Your task to perform on an android device: stop showing notifications on the lock screen Image 0: 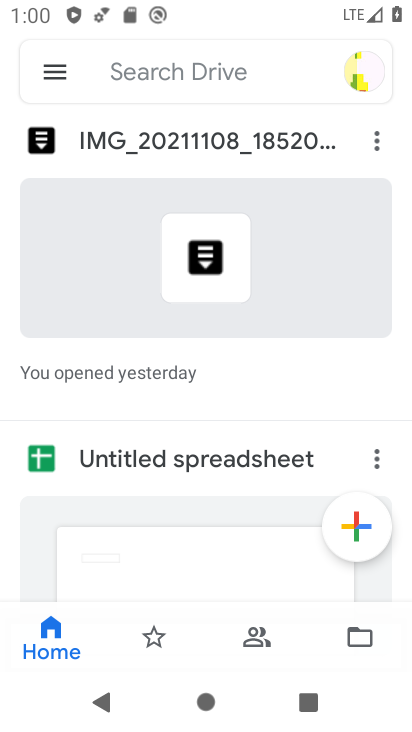
Step 0: press home button
Your task to perform on an android device: stop showing notifications on the lock screen Image 1: 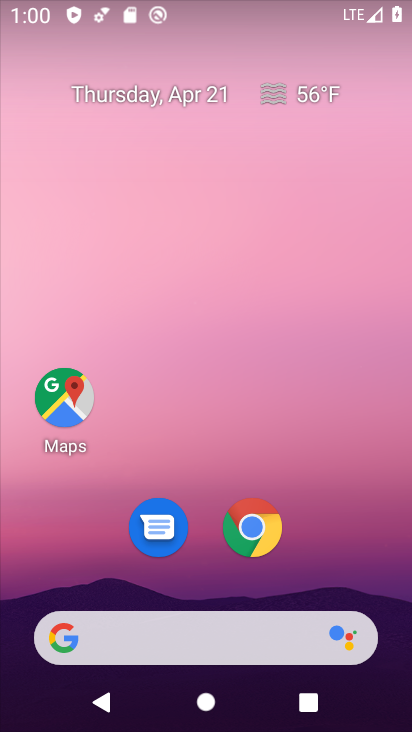
Step 1: drag from (199, 583) to (255, 174)
Your task to perform on an android device: stop showing notifications on the lock screen Image 2: 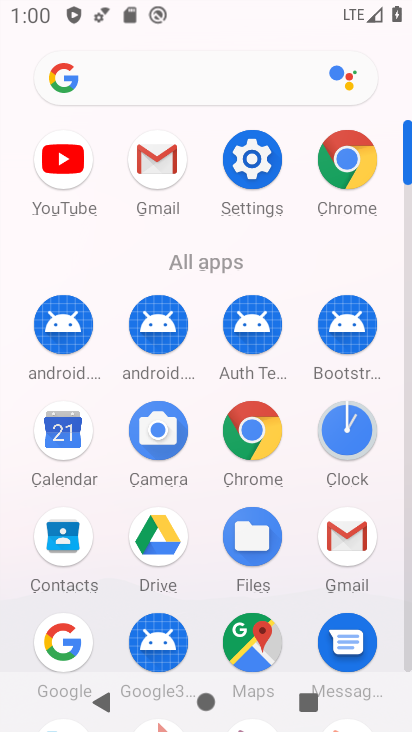
Step 2: click (256, 174)
Your task to perform on an android device: stop showing notifications on the lock screen Image 3: 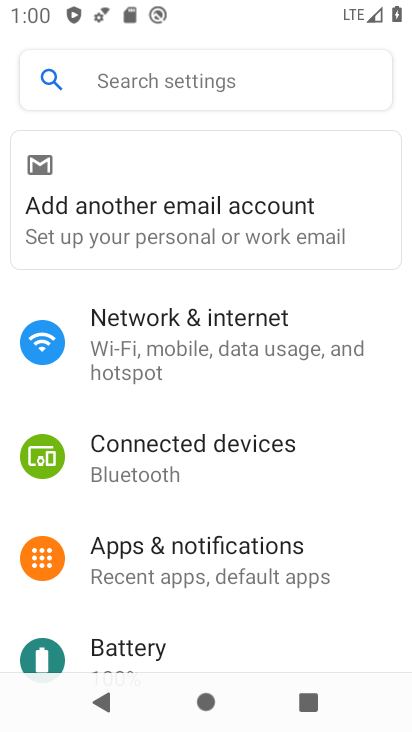
Step 3: click (188, 548)
Your task to perform on an android device: stop showing notifications on the lock screen Image 4: 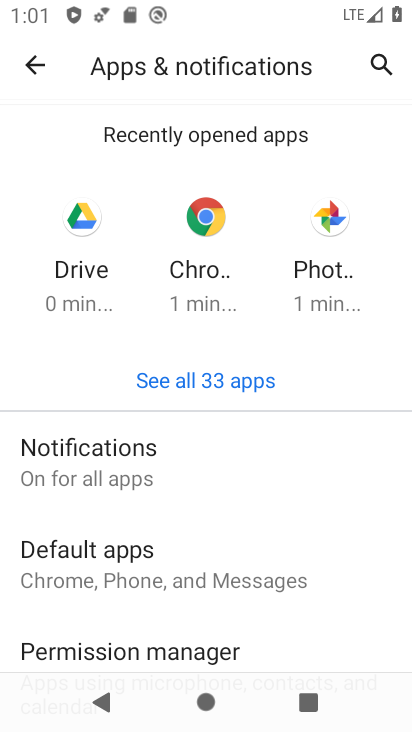
Step 4: click (164, 467)
Your task to perform on an android device: stop showing notifications on the lock screen Image 5: 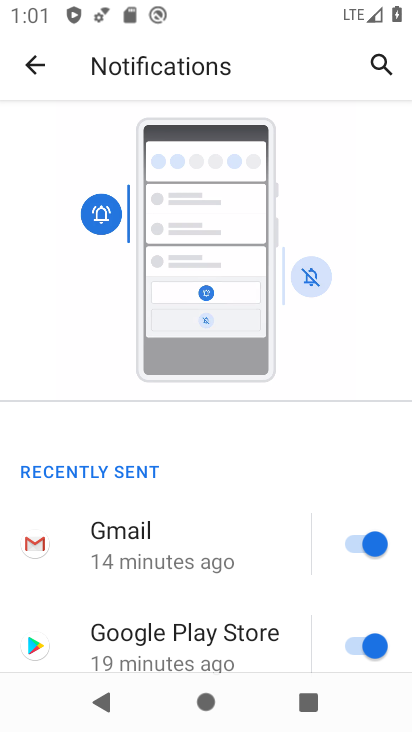
Step 5: drag from (208, 563) to (240, 352)
Your task to perform on an android device: stop showing notifications on the lock screen Image 6: 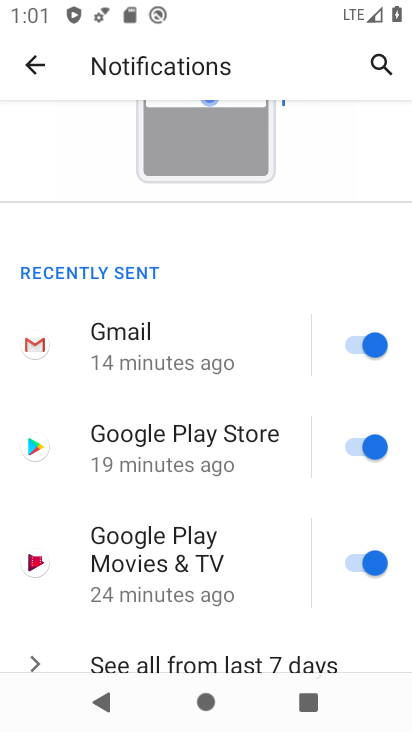
Step 6: drag from (186, 571) to (228, 298)
Your task to perform on an android device: stop showing notifications on the lock screen Image 7: 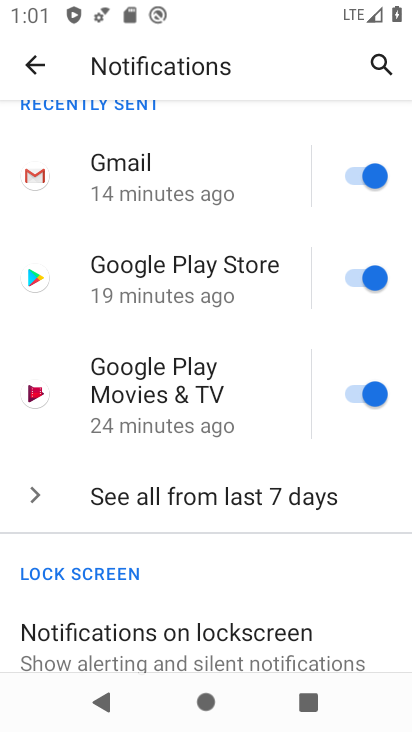
Step 7: click (190, 634)
Your task to perform on an android device: stop showing notifications on the lock screen Image 8: 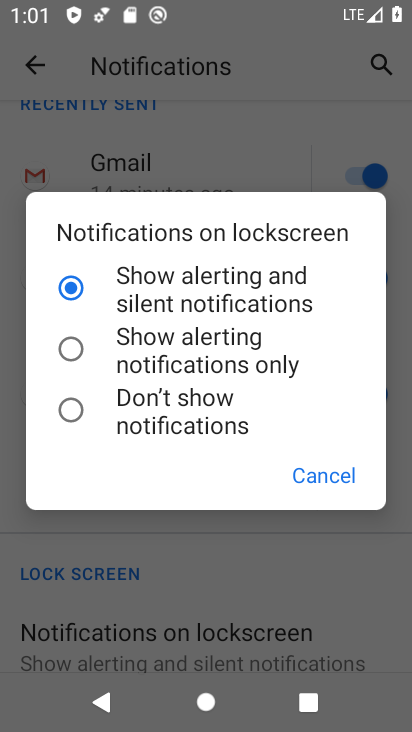
Step 8: click (65, 401)
Your task to perform on an android device: stop showing notifications on the lock screen Image 9: 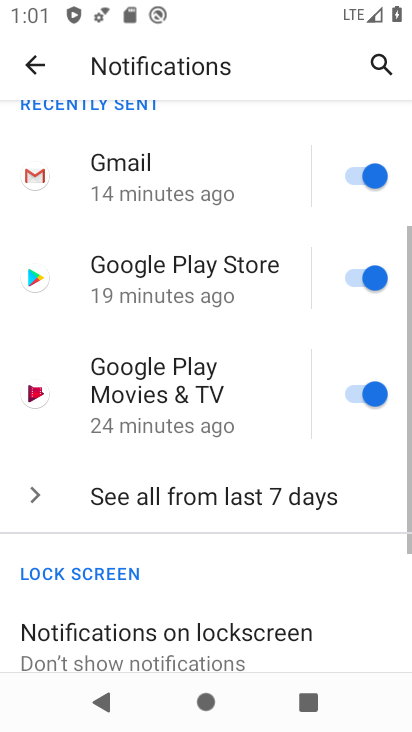
Step 9: task complete